Your task to perform on an android device: Open Reddit.com Image 0: 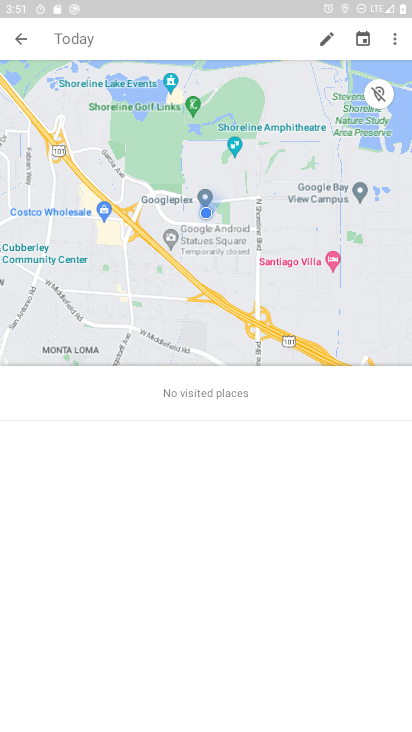
Step 0: press home button
Your task to perform on an android device: Open Reddit.com Image 1: 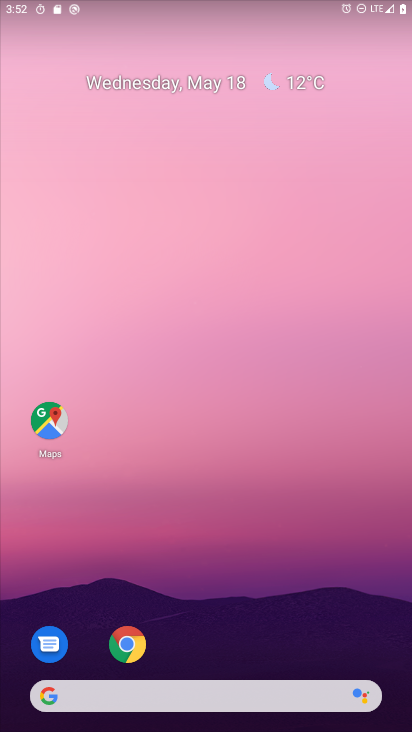
Step 1: drag from (394, 684) to (367, 264)
Your task to perform on an android device: Open Reddit.com Image 2: 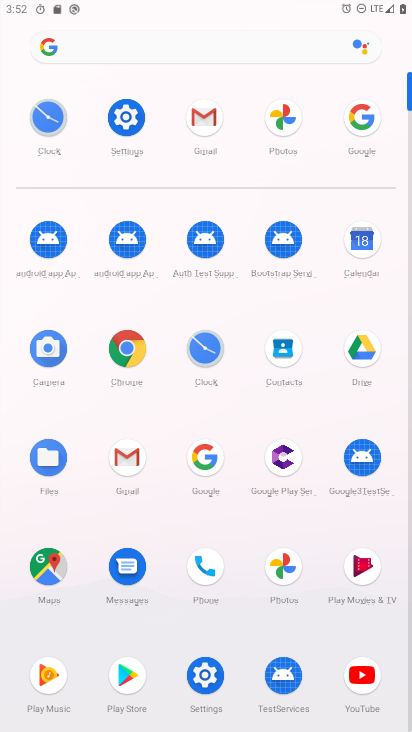
Step 2: click (125, 351)
Your task to perform on an android device: Open Reddit.com Image 3: 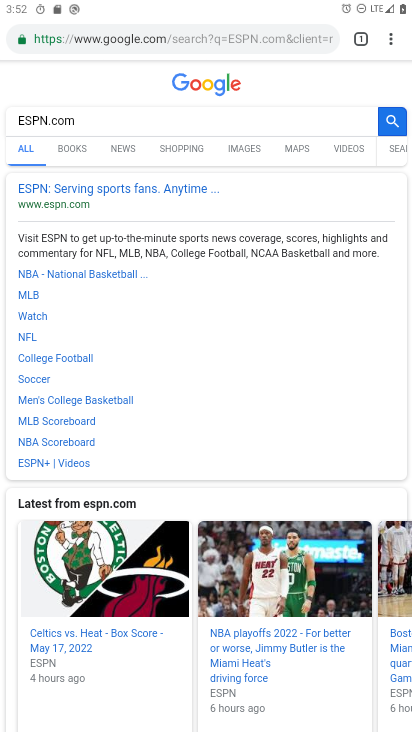
Step 3: click (334, 36)
Your task to perform on an android device: Open Reddit.com Image 4: 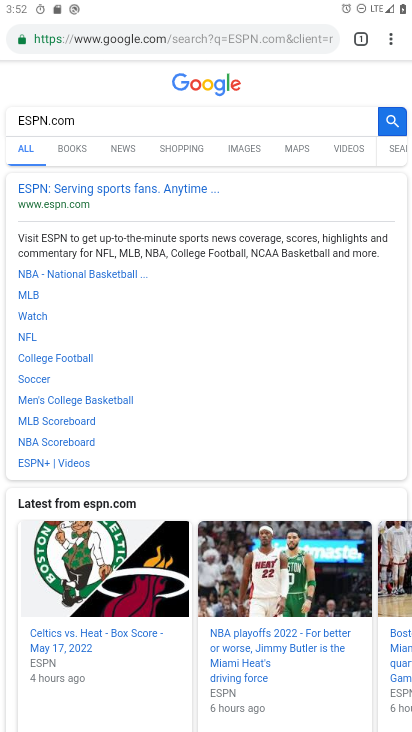
Step 4: click (331, 36)
Your task to perform on an android device: Open Reddit.com Image 5: 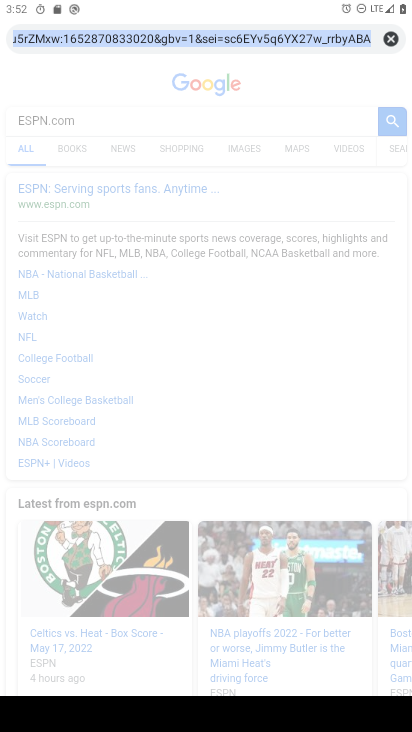
Step 5: click (391, 31)
Your task to perform on an android device: Open Reddit.com Image 6: 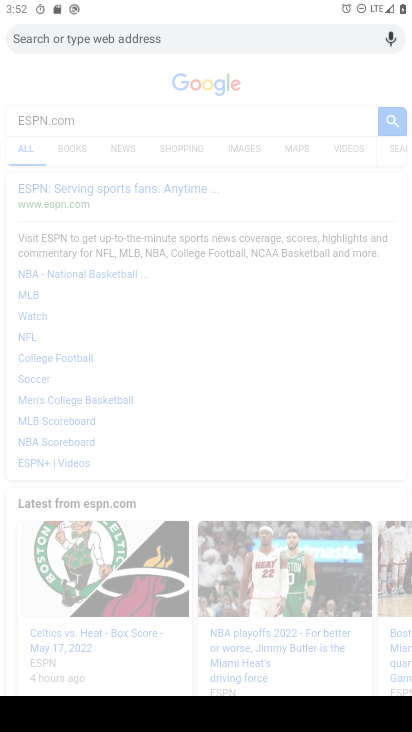
Step 6: type "coffee shops"
Your task to perform on an android device: Open Reddit.com Image 7: 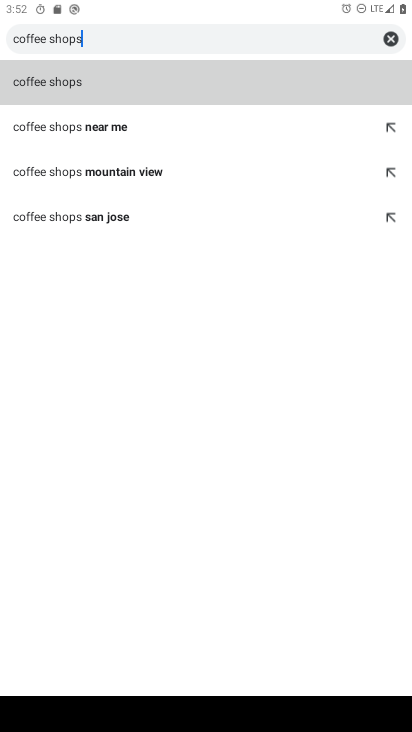
Step 7: click (87, 80)
Your task to perform on an android device: Open Reddit.com Image 8: 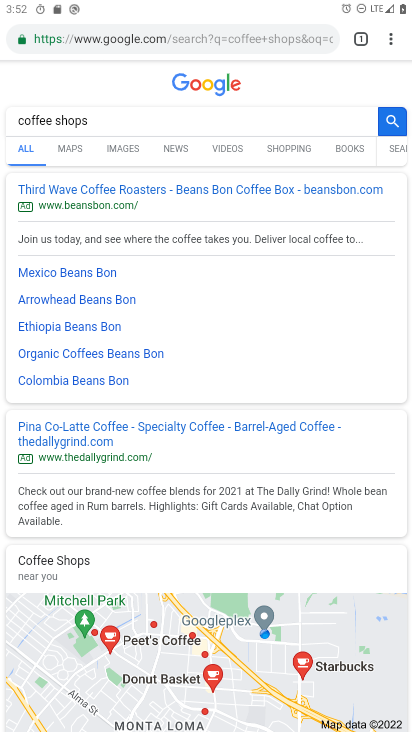
Step 8: task complete